Your task to perform on an android device: See recent photos Image 0: 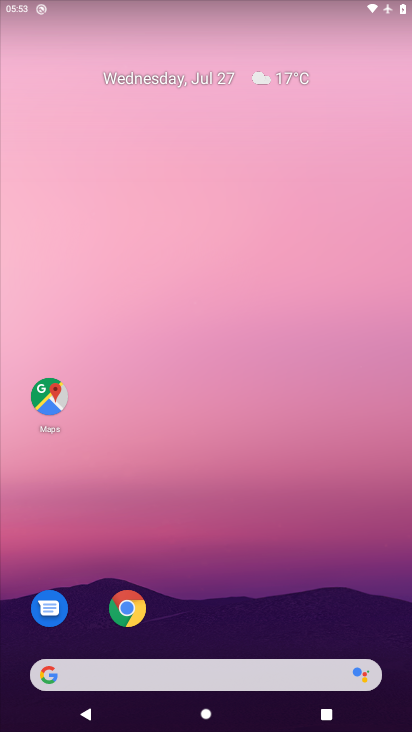
Step 0: press home button
Your task to perform on an android device: See recent photos Image 1: 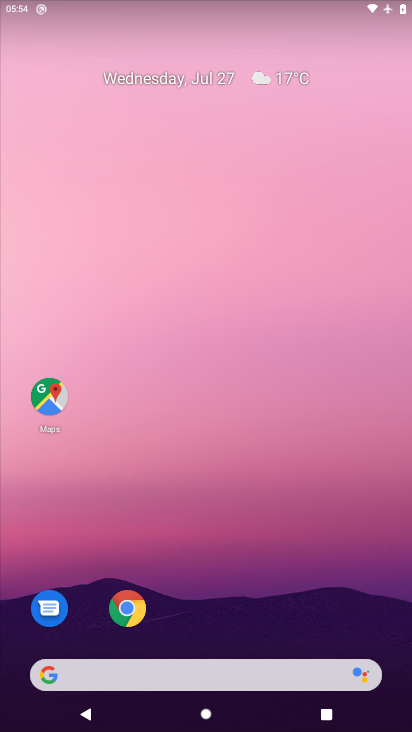
Step 1: drag from (228, 637) to (218, 283)
Your task to perform on an android device: See recent photos Image 2: 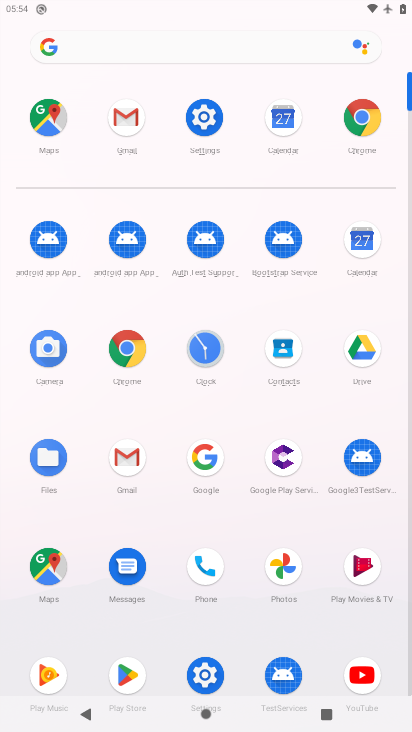
Step 2: click (283, 576)
Your task to perform on an android device: See recent photos Image 3: 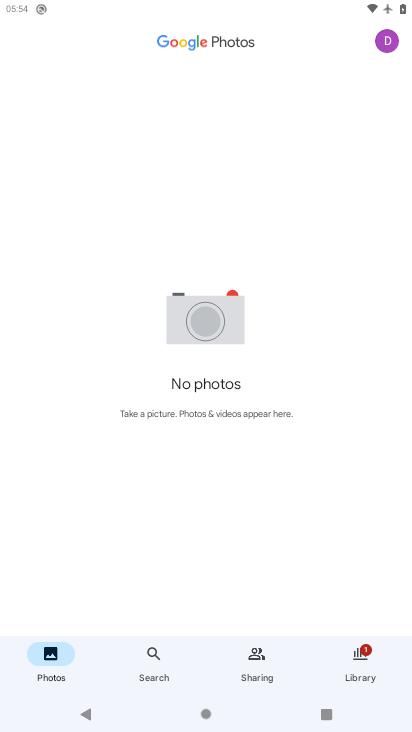
Step 3: task complete